Your task to perform on an android device: Search for Italian restaurants on Maps Image 0: 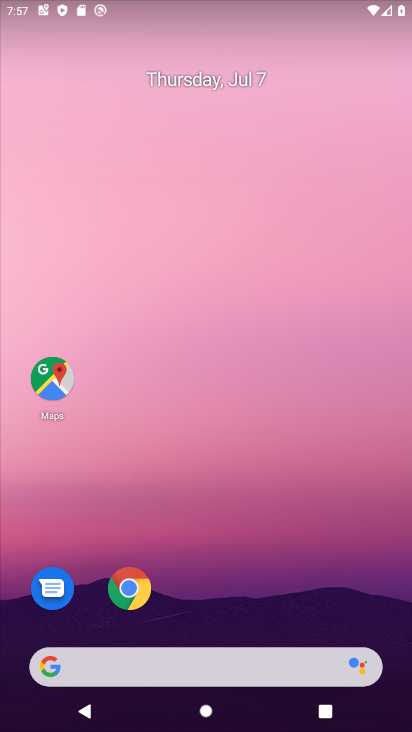
Step 0: drag from (222, 597) to (261, 90)
Your task to perform on an android device: Search for Italian restaurants on Maps Image 1: 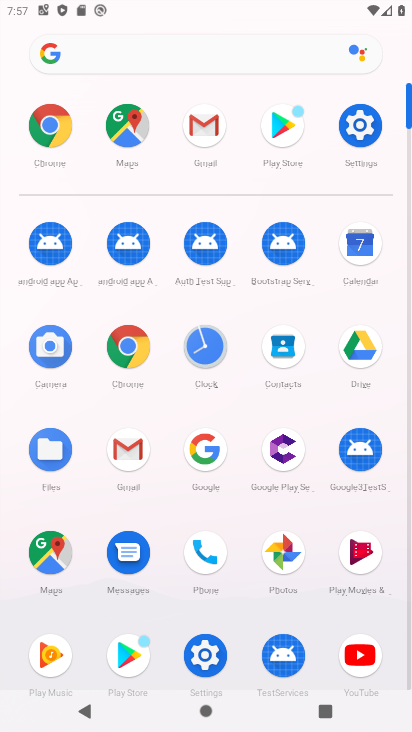
Step 1: click (130, 122)
Your task to perform on an android device: Search for Italian restaurants on Maps Image 2: 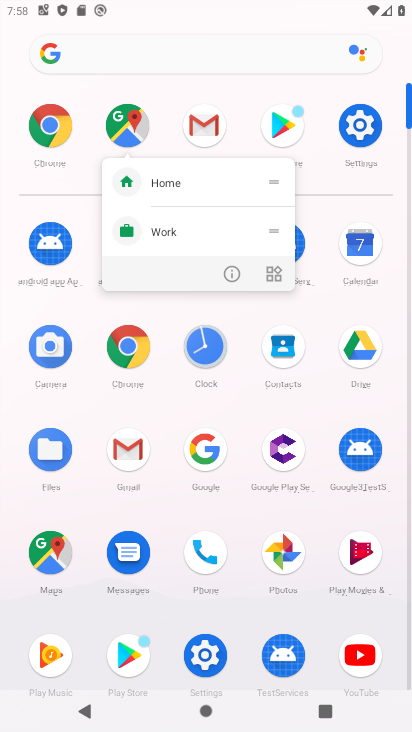
Step 2: click (236, 273)
Your task to perform on an android device: Search for Italian restaurants on Maps Image 3: 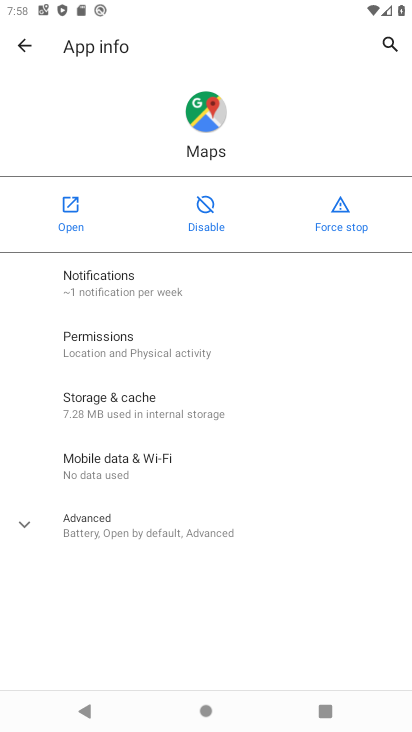
Step 3: click (74, 221)
Your task to perform on an android device: Search for Italian restaurants on Maps Image 4: 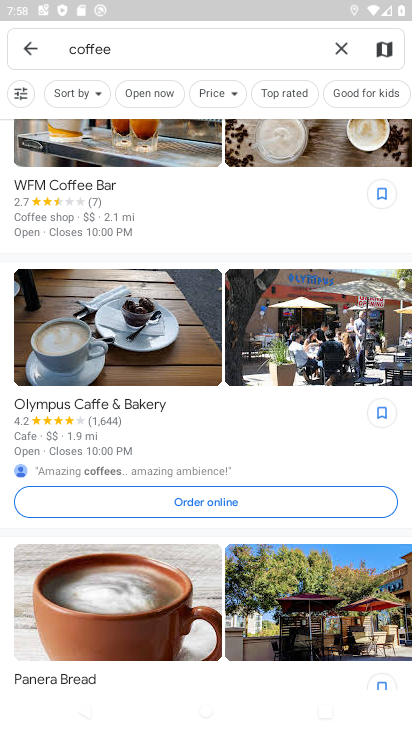
Step 4: drag from (246, 460) to (297, 0)
Your task to perform on an android device: Search for Italian restaurants on Maps Image 5: 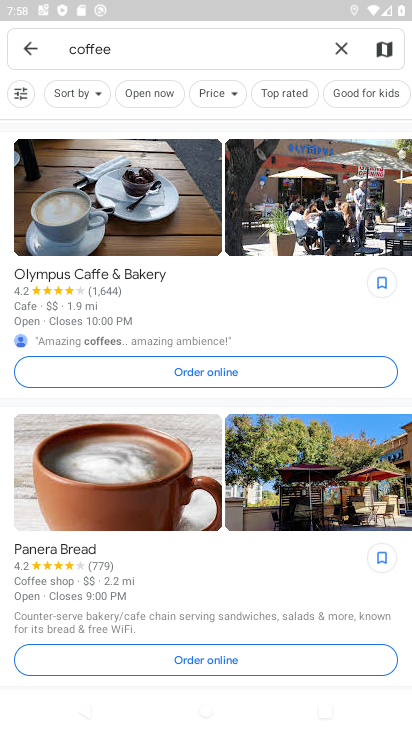
Step 5: drag from (215, 528) to (307, 113)
Your task to perform on an android device: Search for Italian restaurants on Maps Image 6: 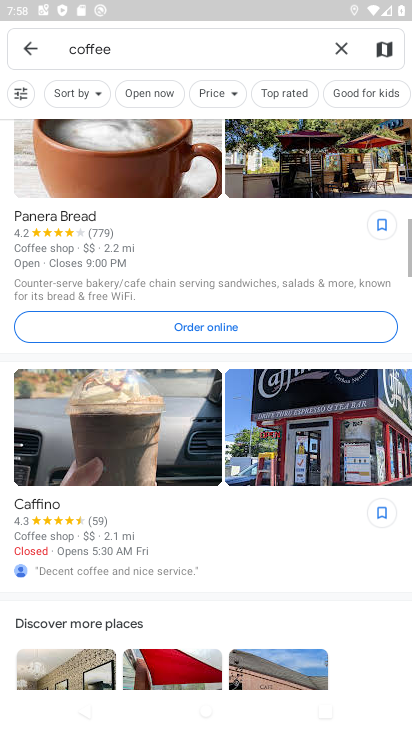
Step 6: drag from (188, 214) to (310, 722)
Your task to perform on an android device: Search for Italian restaurants on Maps Image 7: 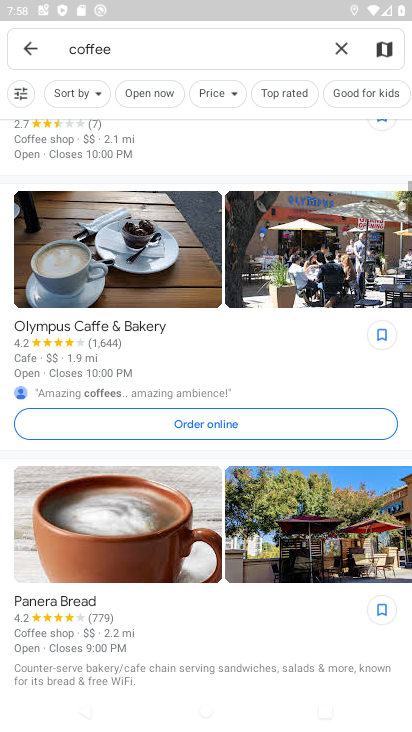
Step 7: drag from (229, 282) to (307, 658)
Your task to perform on an android device: Search for Italian restaurants on Maps Image 8: 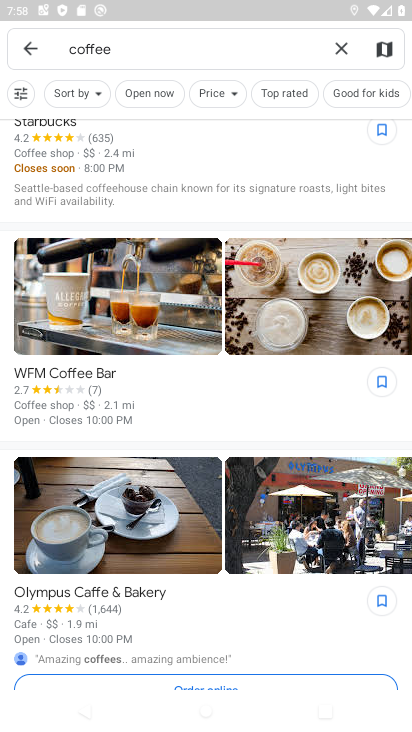
Step 8: drag from (225, 150) to (281, 645)
Your task to perform on an android device: Search for Italian restaurants on Maps Image 9: 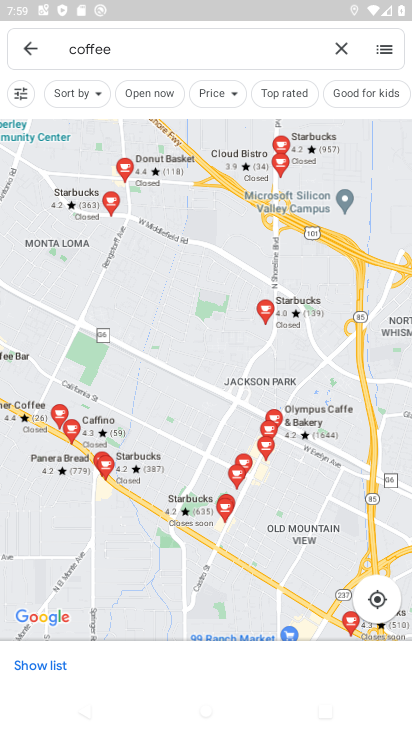
Step 9: drag from (152, 561) to (243, 261)
Your task to perform on an android device: Search for Italian restaurants on Maps Image 10: 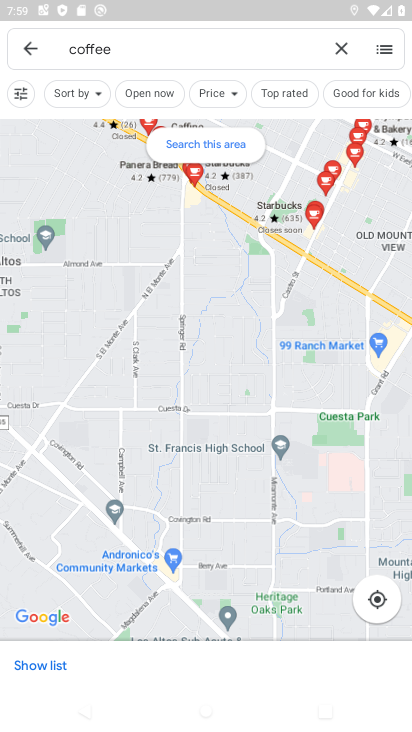
Step 10: drag from (231, 328) to (401, 224)
Your task to perform on an android device: Search for Italian restaurants on Maps Image 11: 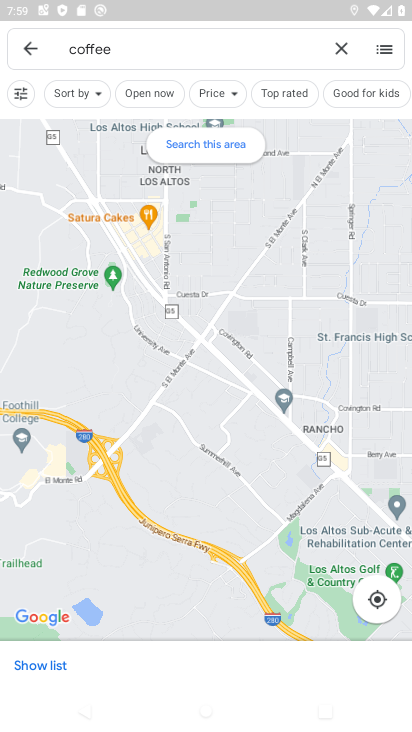
Step 11: click (340, 64)
Your task to perform on an android device: Search for Italian restaurants on Maps Image 12: 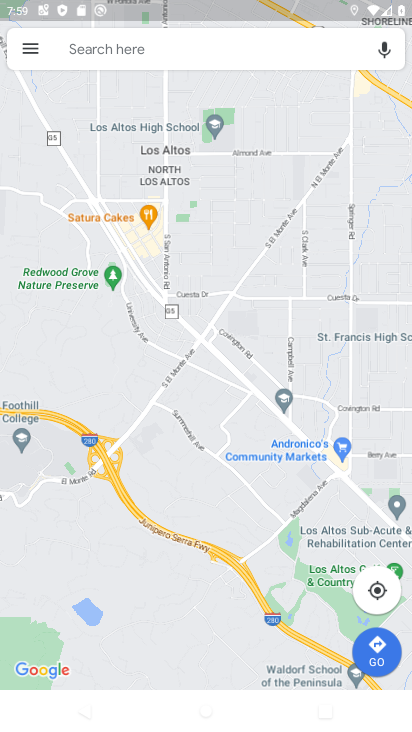
Step 12: click (127, 44)
Your task to perform on an android device: Search for Italian restaurants on Maps Image 13: 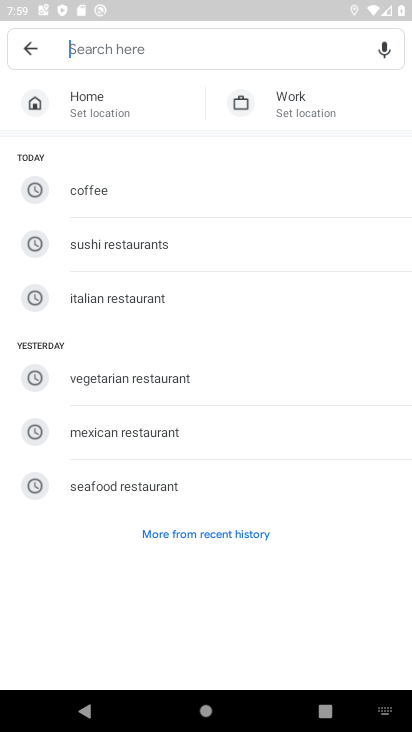
Step 13: click (160, 306)
Your task to perform on an android device: Search for Italian restaurants on Maps Image 14: 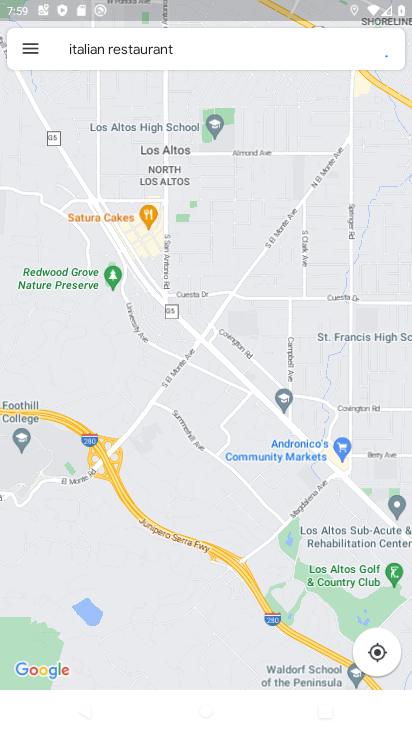
Step 14: task complete